Your task to perform on an android device: Check the news Image 0: 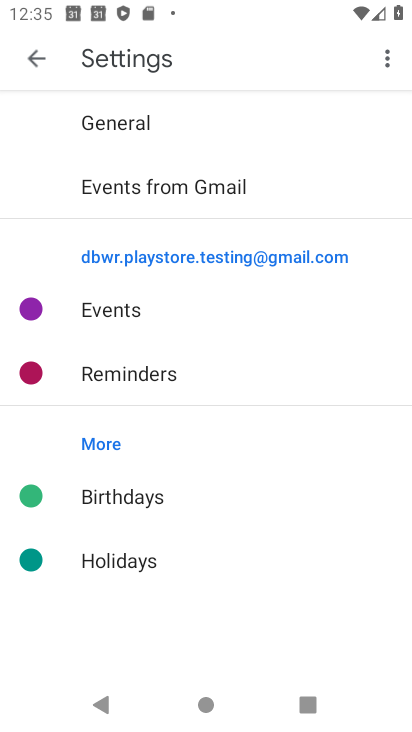
Step 0: press home button
Your task to perform on an android device: Check the news Image 1: 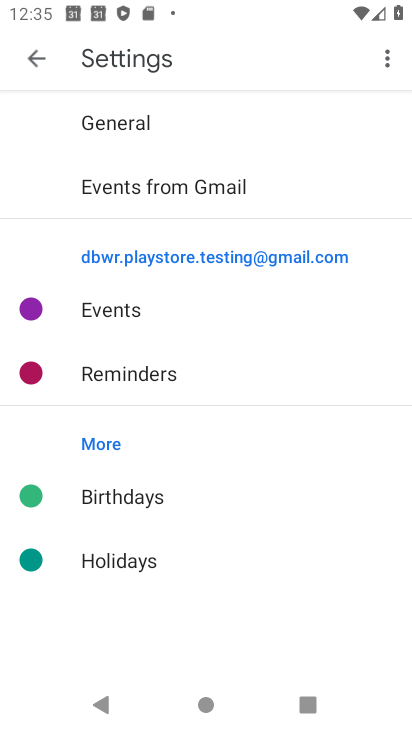
Step 1: drag from (164, 500) to (345, 120)
Your task to perform on an android device: Check the news Image 2: 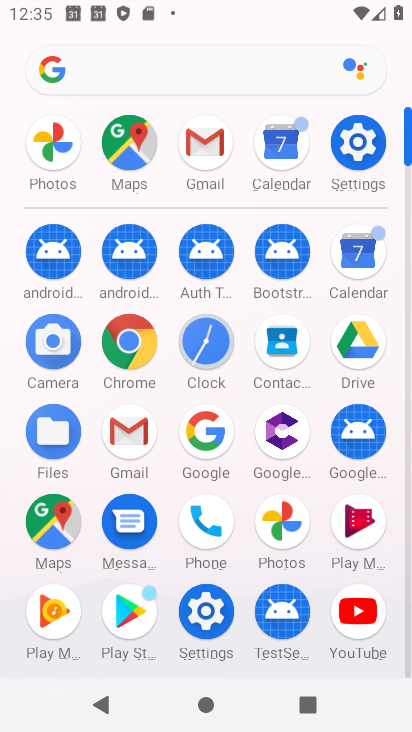
Step 2: click (143, 54)
Your task to perform on an android device: Check the news Image 3: 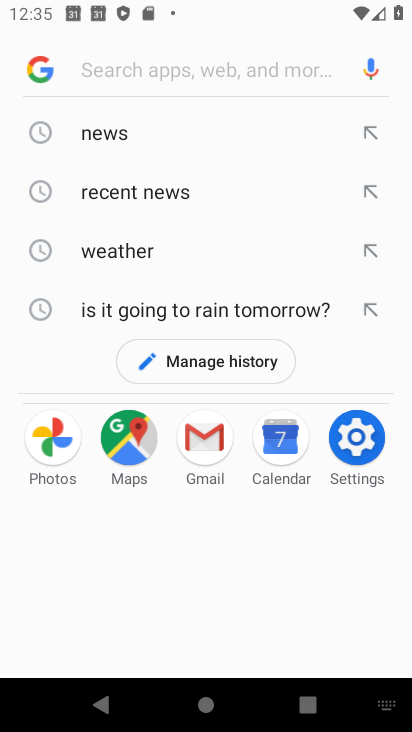
Step 3: click (117, 147)
Your task to perform on an android device: Check the news Image 4: 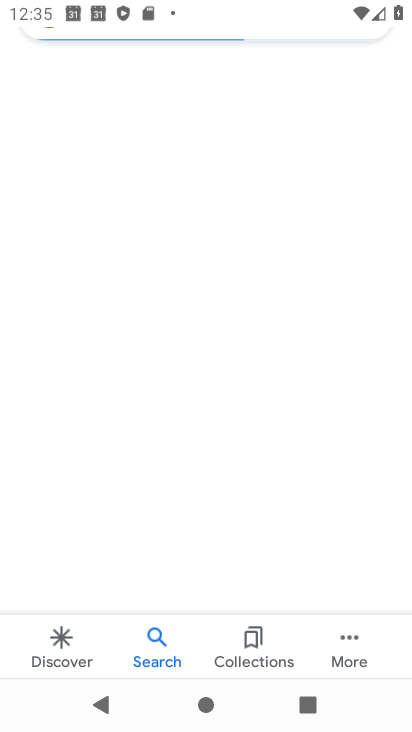
Step 4: task complete